Your task to perform on an android device: turn on the 12-hour format for clock Image 0: 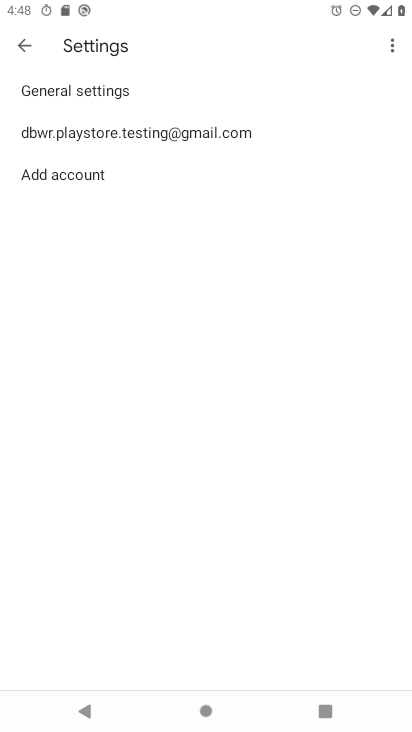
Step 0: press home button
Your task to perform on an android device: turn on the 12-hour format for clock Image 1: 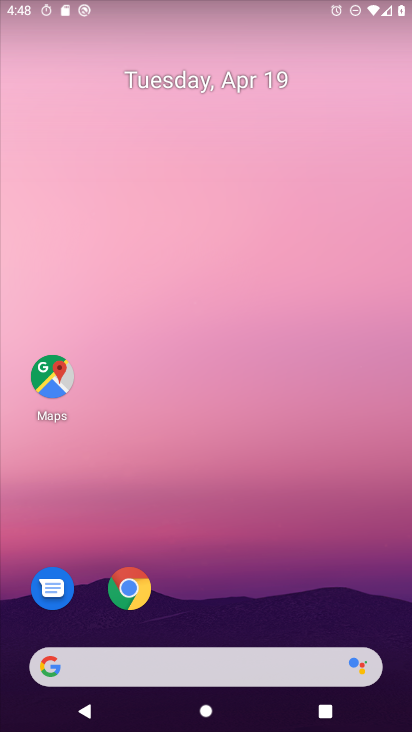
Step 1: drag from (225, 553) to (212, 114)
Your task to perform on an android device: turn on the 12-hour format for clock Image 2: 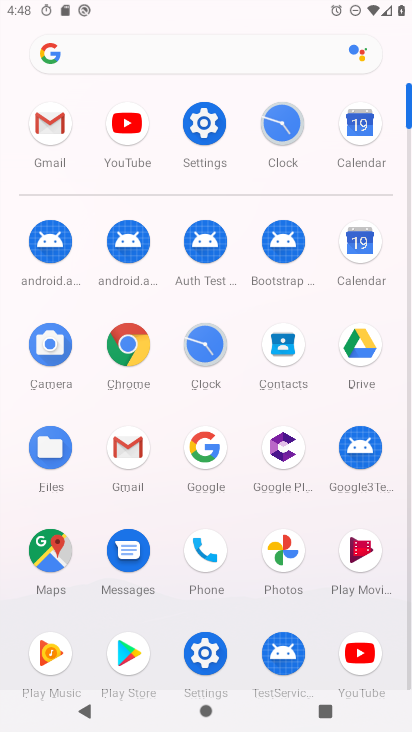
Step 2: click (280, 124)
Your task to perform on an android device: turn on the 12-hour format for clock Image 3: 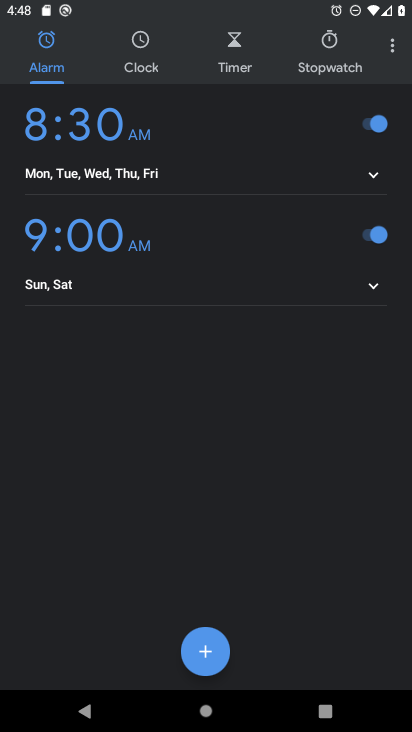
Step 3: click (386, 54)
Your task to perform on an android device: turn on the 12-hour format for clock Image 4: 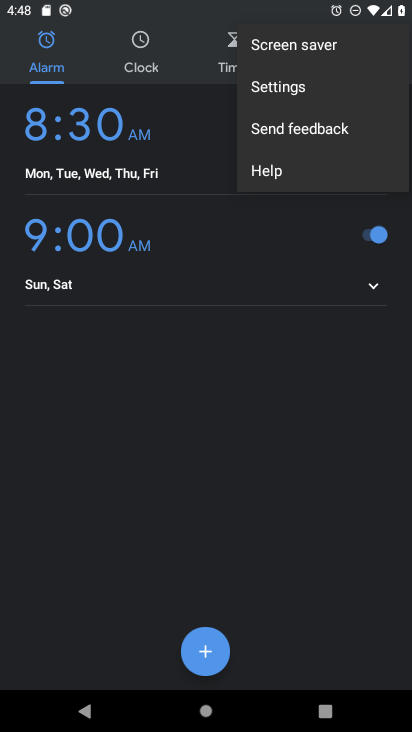
Step 4: click (272, 86)
Your task to perform on an android device: turn on the 12-hour format for clock Image 5: 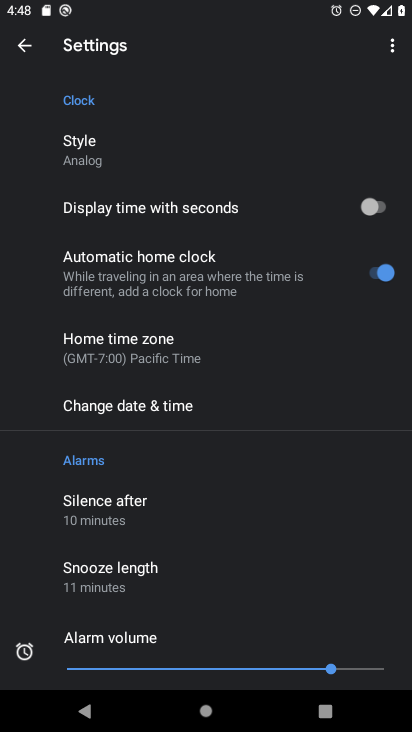
Step 5: drag from (230, 544) to (235, 322)
Your task to perform on an android device: turn on the 12-hour format for clock Image 6: 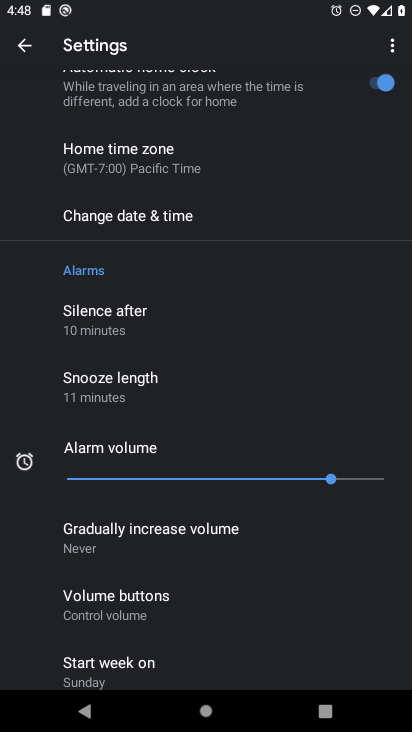
Step 6: click (184, 216)
Your task to perform on an android device: turn on the 12-hour format for clock Image 7: 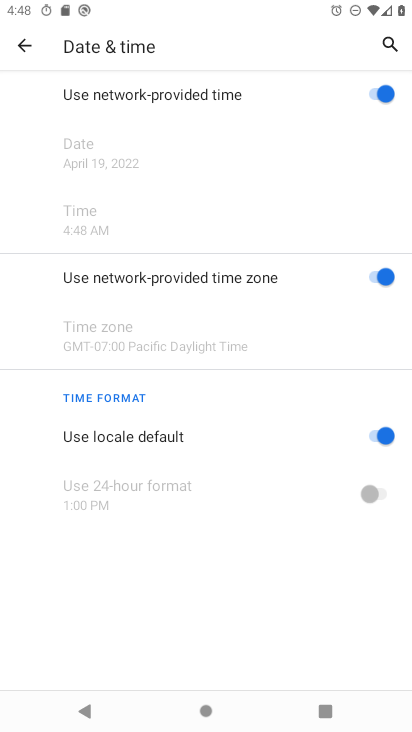
Step 7: task complete